Your task to perform on an android device: open app "Microsoft Excel" Image 0: 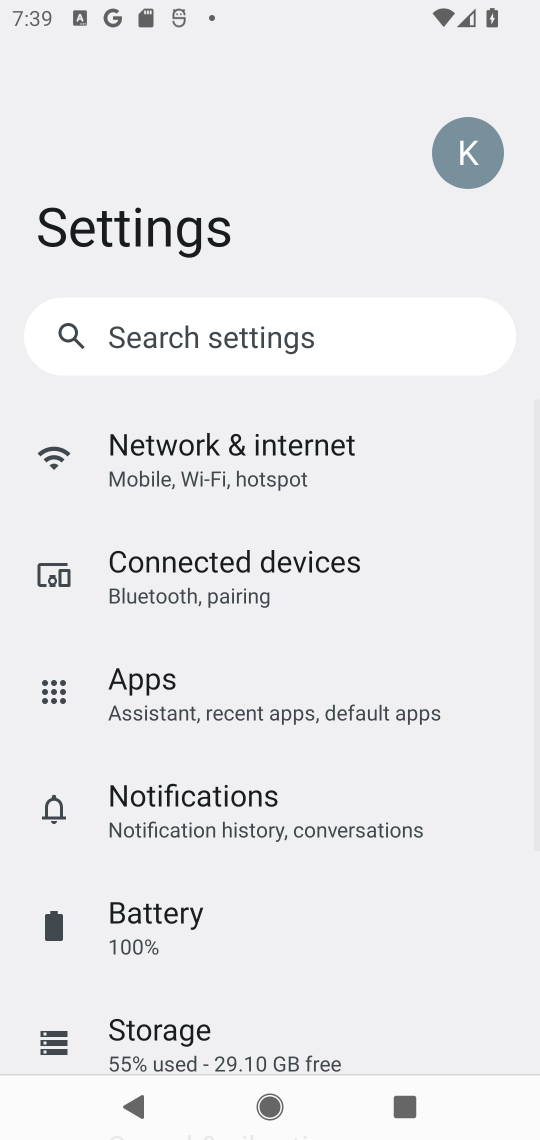
Step 0: press home button
Your task to perform on an android device: open app "Microsoft Excel" Image 1: 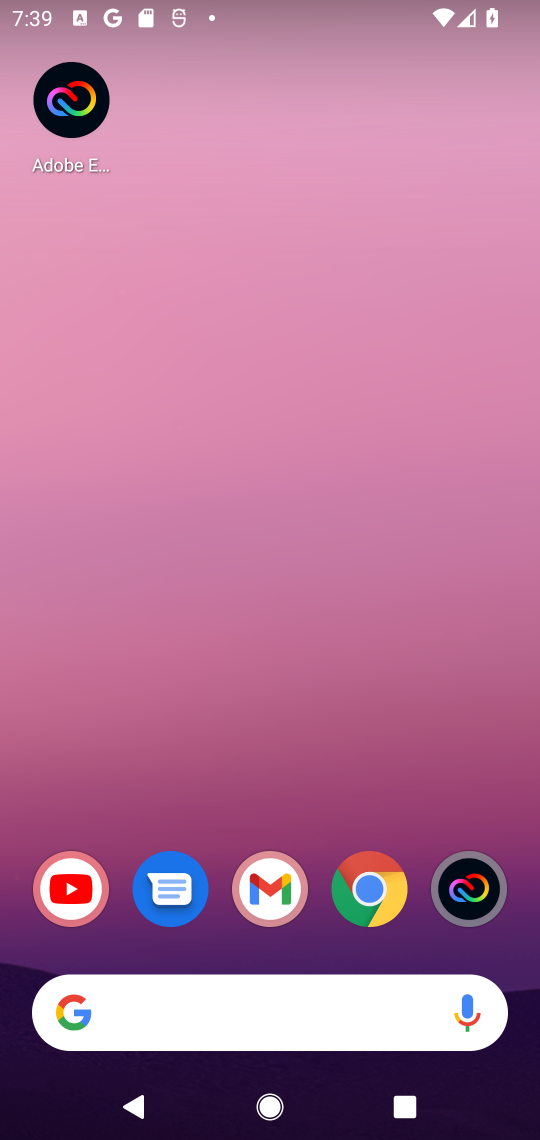
Step 1: press home button
Your task to perform on an android device: open app "Microsoft Excel" Image 2: 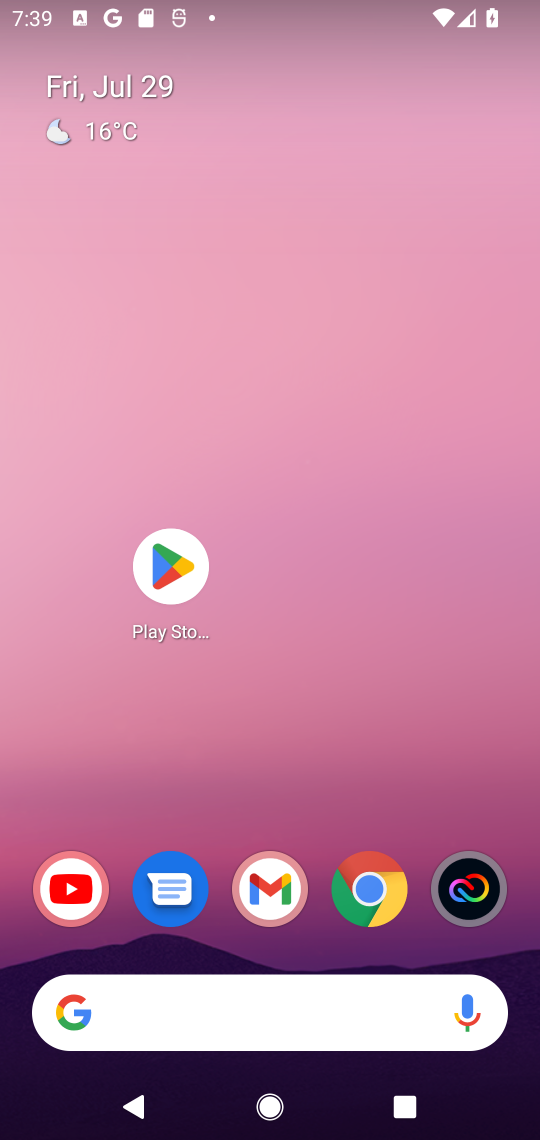
Step 2: click (176, 570)
Your task to perform on an android device: open app "Microsoft Excel" Image 3: 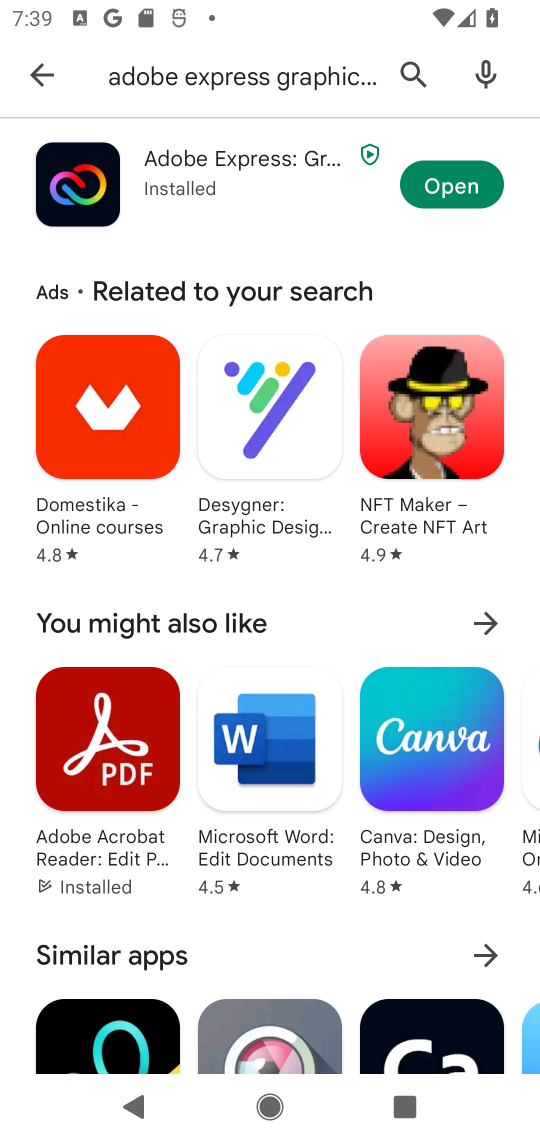
Step 3: click (405, 63)
Your task to perform on an android device: open app "Microsoft Excel" Image 4: 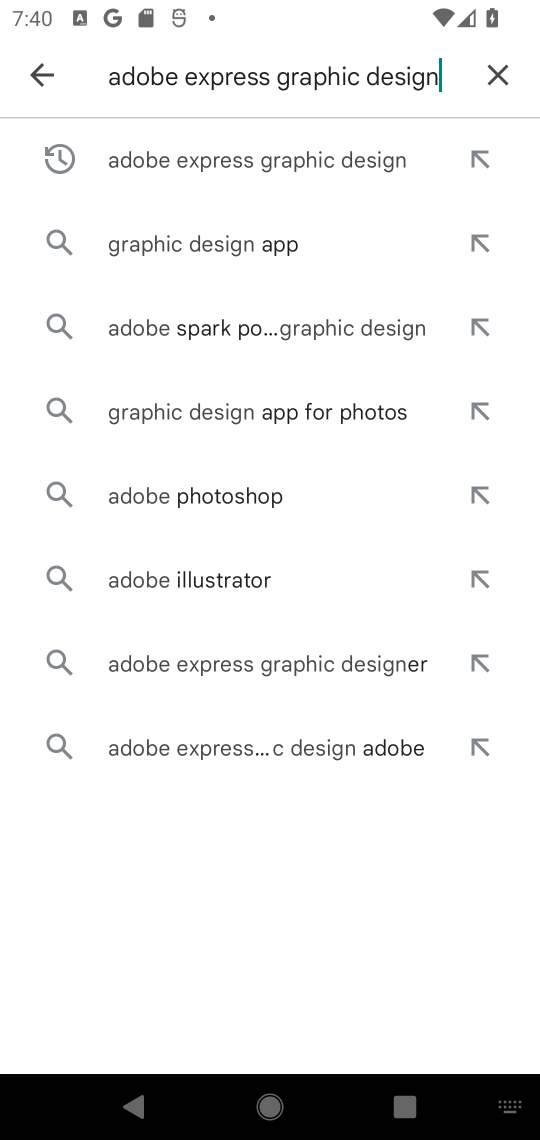
Step 4: click (492, 71)
Your task to perform on an android device: open app "Microsoft Excel" Image 5: 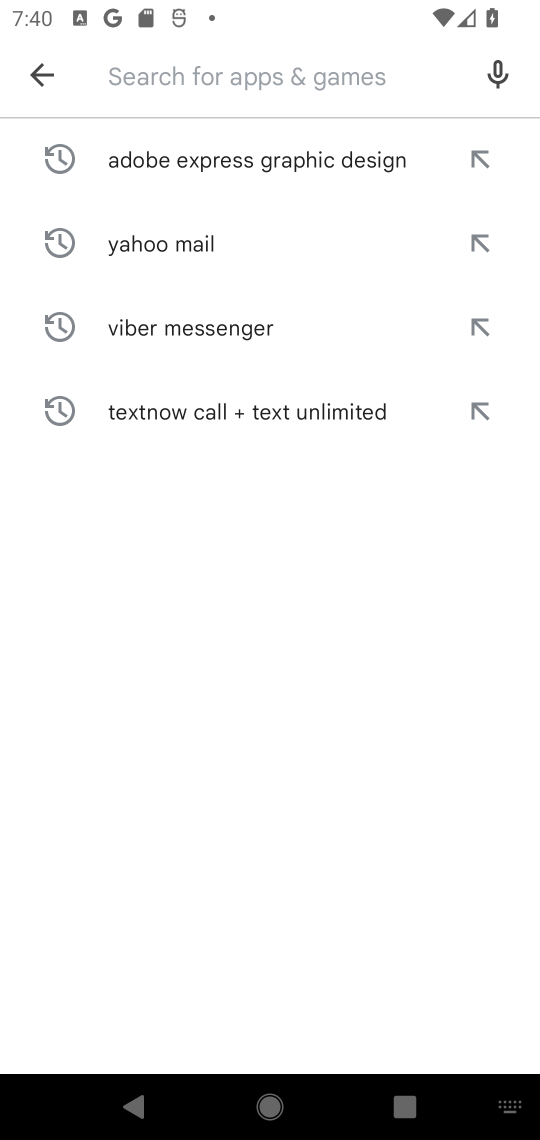
Step 5: type "Microsoft Excel"
Your task to perform on an android device: open app "Microsoft Excel" Image 6: 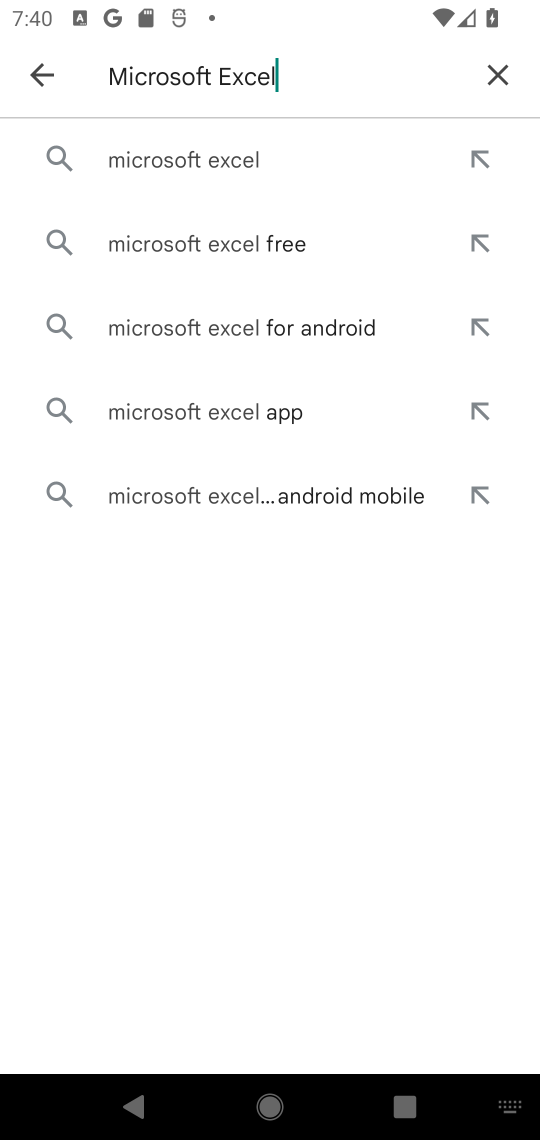
Step 6: click (229, 164)
Your task to perform on an android device: open app "Microsoft Excel" Image 7: 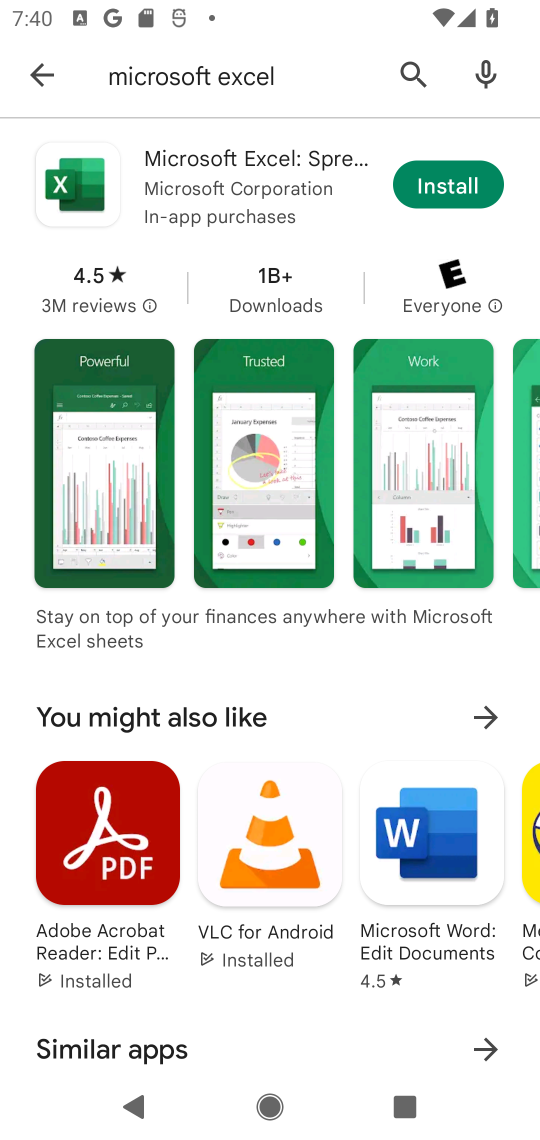
Step 7: task complete